Your task to perform on an android device: all mails in gmail Image 0: 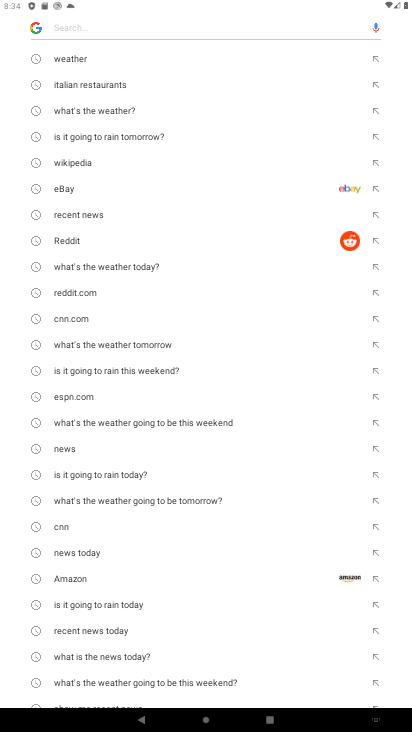
Step 0: press home button
Your task to perform on an android device: all mails in gmail Image 1: 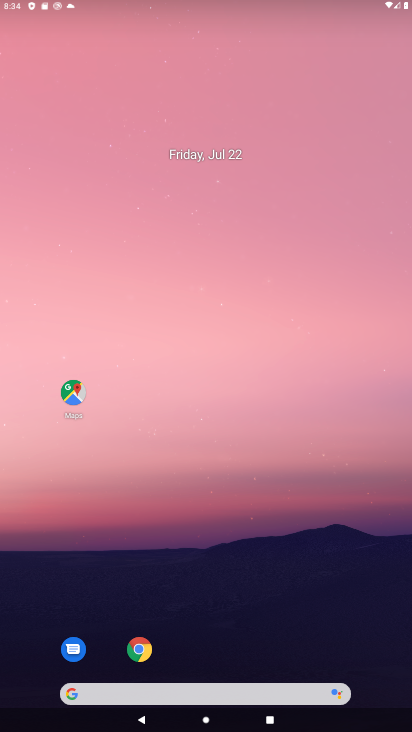
Step 1: drag from (220, 546) to (241, 226)
Your task to perform on an android device: all mails in gmail Image 2: 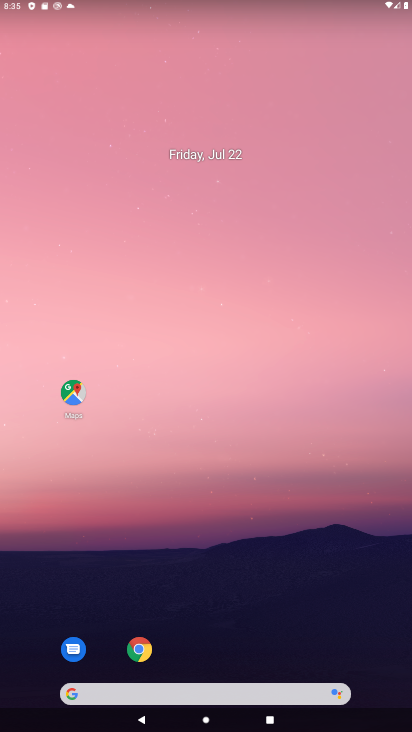
Step 2: click (257, 264)
Your task to perform on an android device: all mails in gmail Image 3: 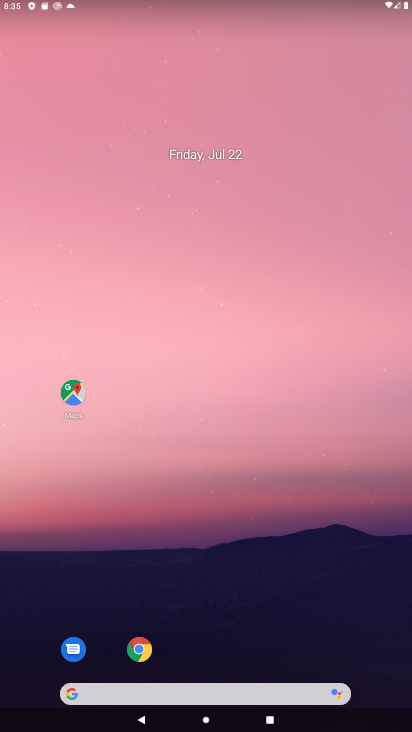
Step 3: drag from (265, 587) to (263, 224)
Your task to perform on an android device: all mails in gmail Image 4: 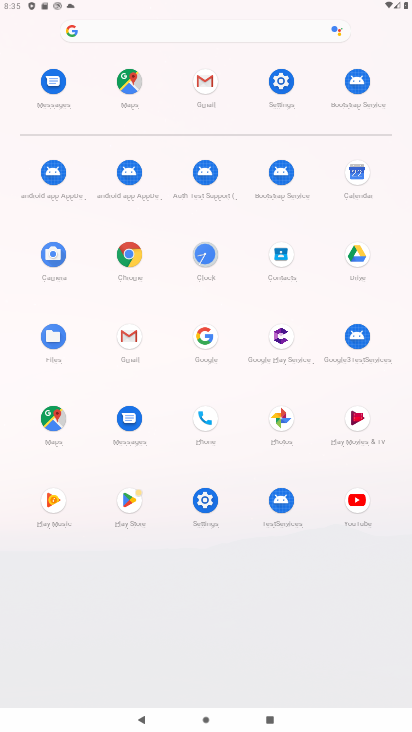
Step 4: click (131, 336)
Your task to perform on an android device: all mails in gmail Image 5: 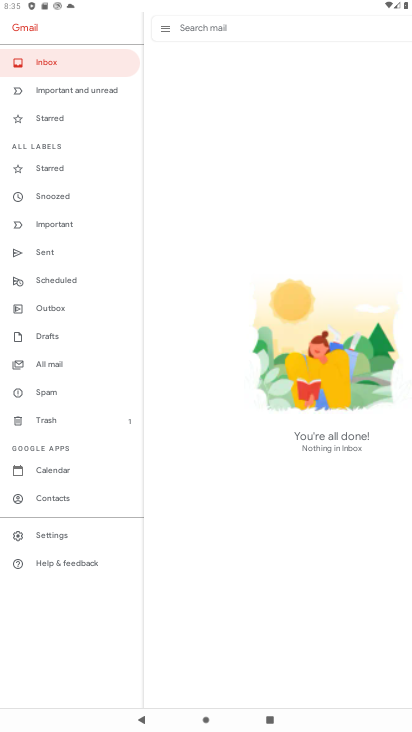
Step 5: click (51, 365)
Your task to perform on an android device: all mails in gmail Image 6: 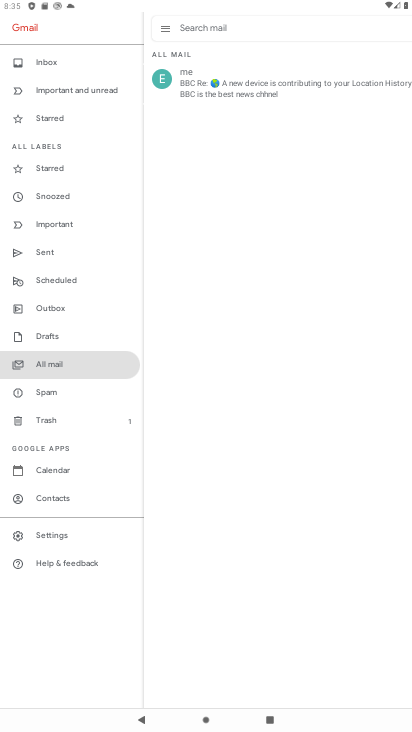
Step 6: task complete